Your task to perform on an android device: Open battery settings Image 0: 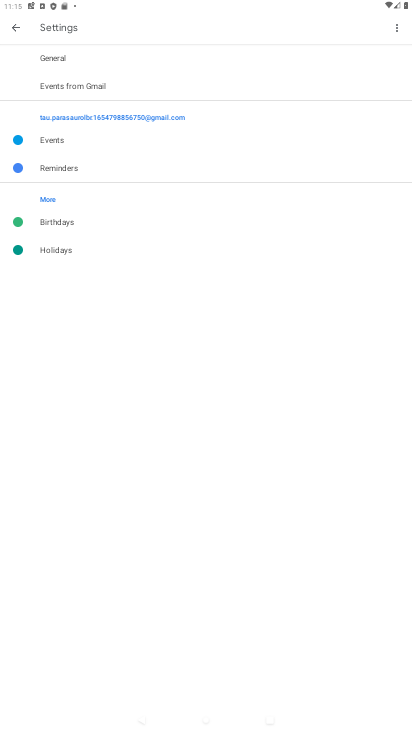
Step 0: press home button
Your task to perform on an android device: Open battery settings Image 1: 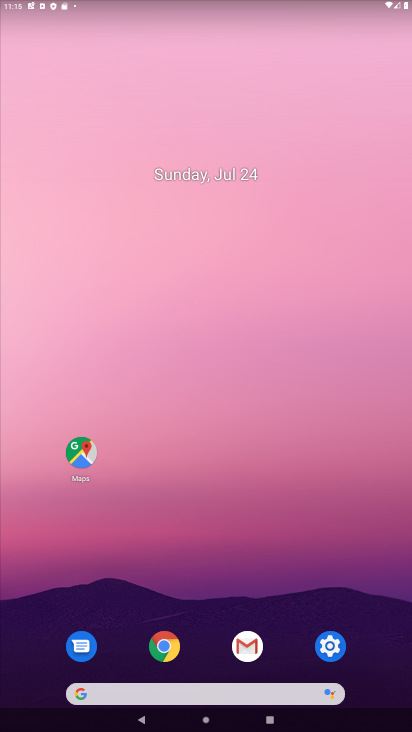
Step 1: click (327, 648)
Your task to perform on an android device: Open battery settings Image 2: 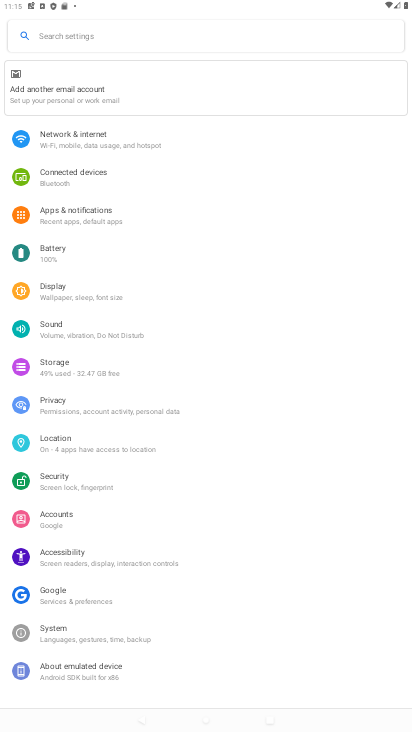
Step 2: click (54, 262)
Your task to perform on an android device: Open battery settings Image 3: 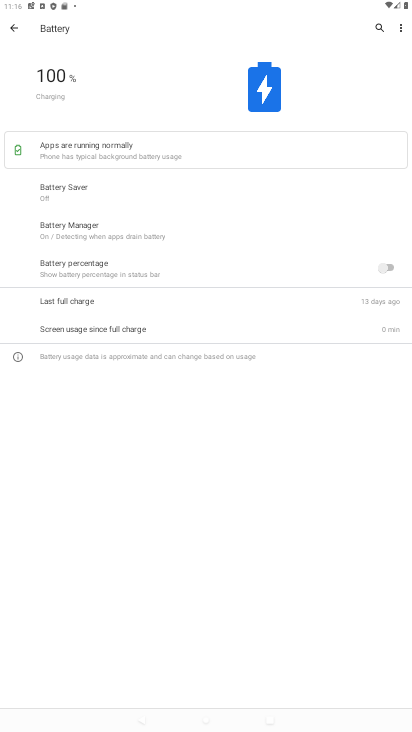
Step 3: task complete